Your task to perform on an android device: Open Wikipedia Image 0: 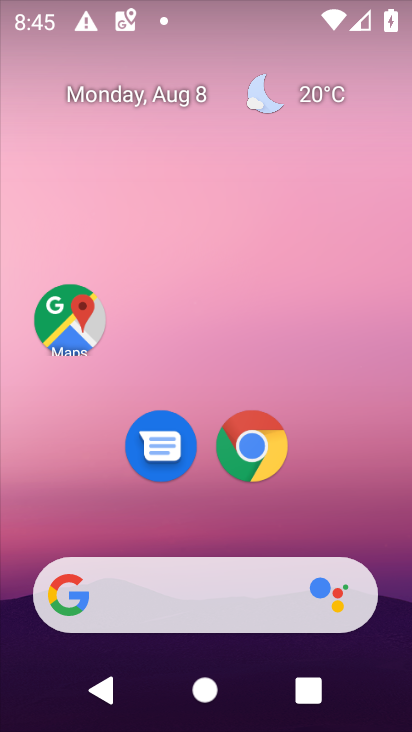
Step 0: click (252, 445)
Your task to perform on an android device: Open Wikipedia Image 1: 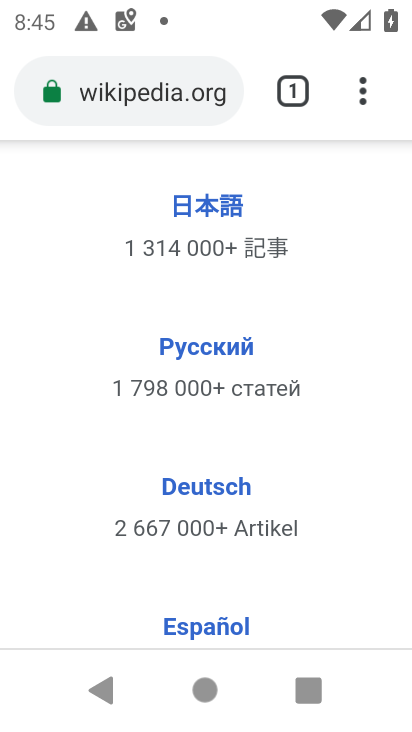
Step 1: click (186, 67)
Your task to perform on an android device: Open Wikipedia Image 2: 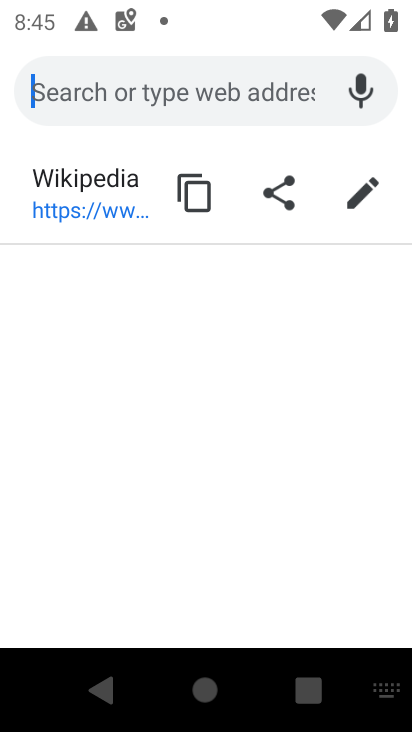
Step 2: type "wikipedia"
Your task to perform on an android device: Open Wikipedia Image 3: 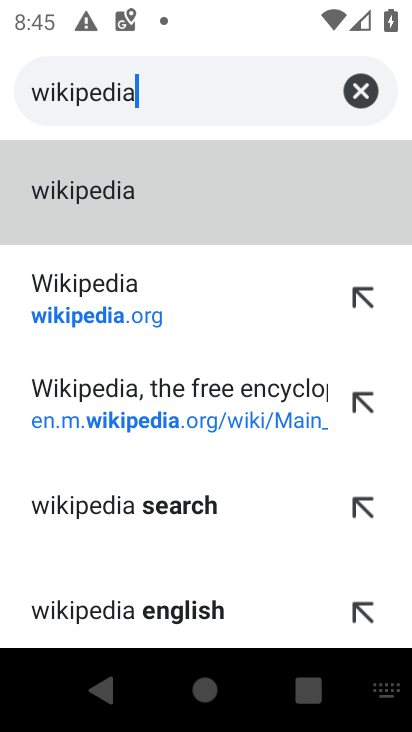
Step 3: click (67, 191)
Your task to perform on an android device: Open Wikipedia Image 4: 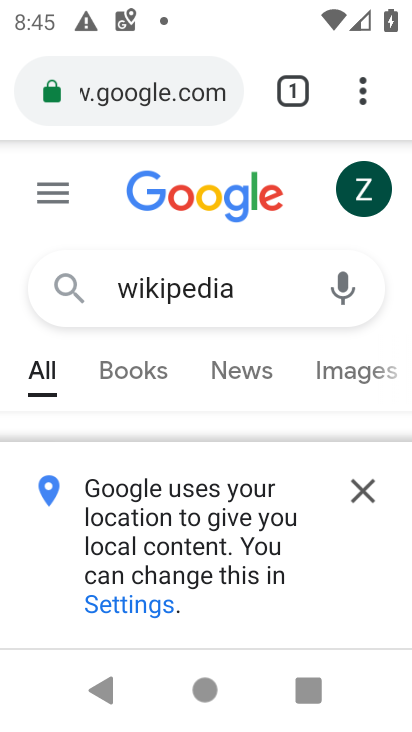
Step 4: click (360, 486)
Your task to perform on an android device: Open Wikipedia Image 5: 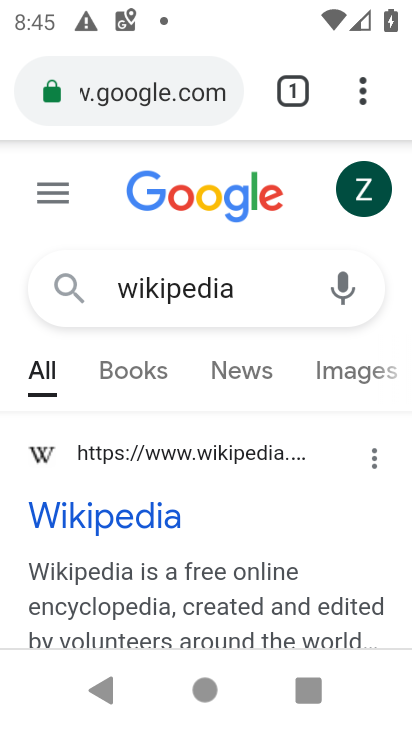
Step 5: click (85, 513)
Your task to perform on an android device: Open Wikipedia Image 6: 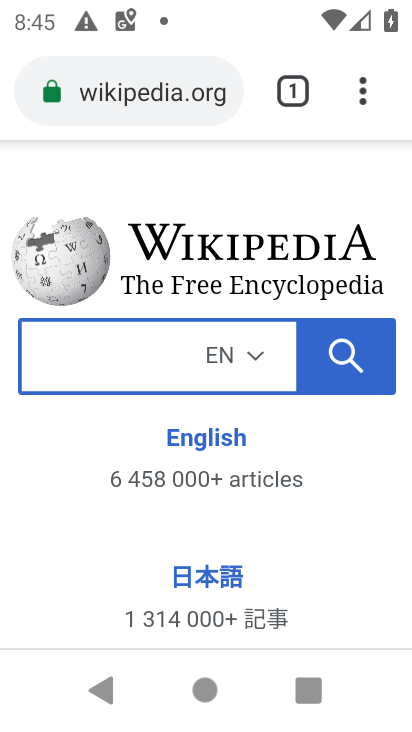
Step 6: task complete